Your task to perform on an android device: Open display settings Image 0: 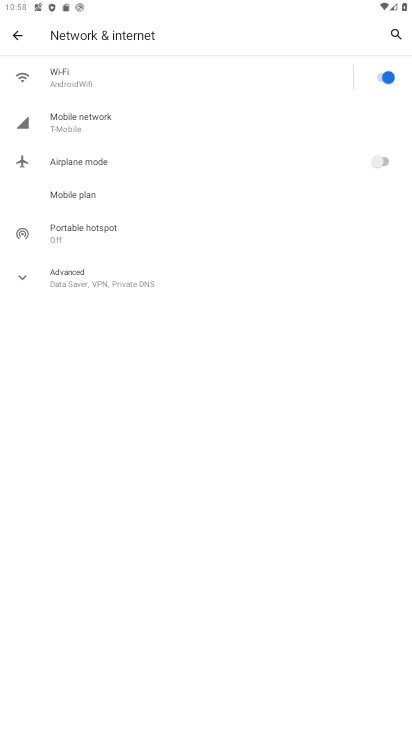
Step 0: press home button
Your task to perform on an android device: Open display settings Image 1: 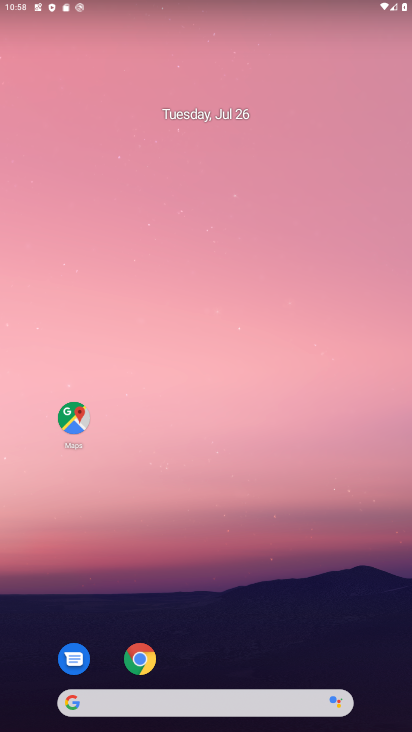
Step 1: drag from (196, 696) to (218, 37)
Your task to perform on an android device: Open display settings Image 2: 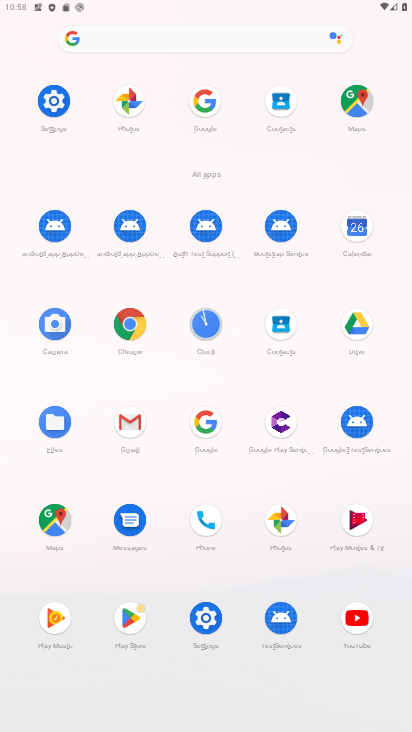
Step 2: click (54, 101)
Your task to perform on an android device: Open display settings Image 3: 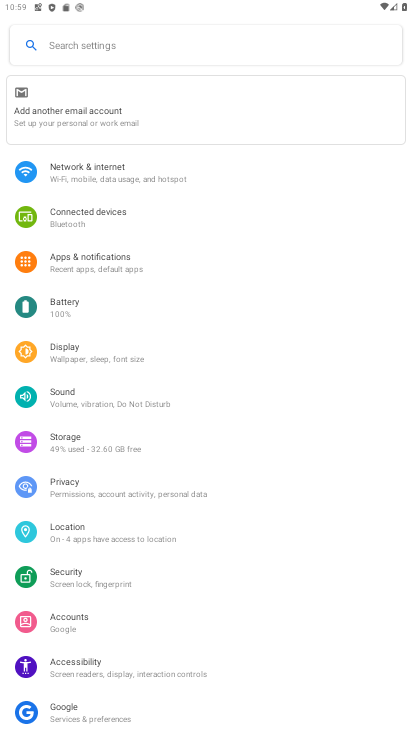
Step 3: click (81, 352)
Your task to perform on an android device: Open display settings Image 4: 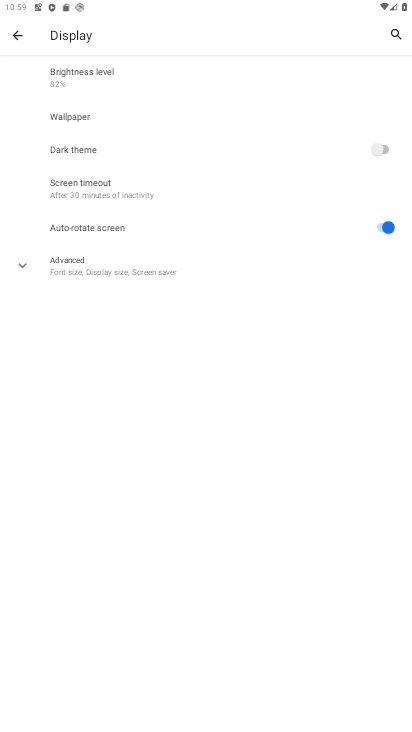
Step 4: task complete